Your task to perform on an android device: toggle javascript in the chrome app Image 0: 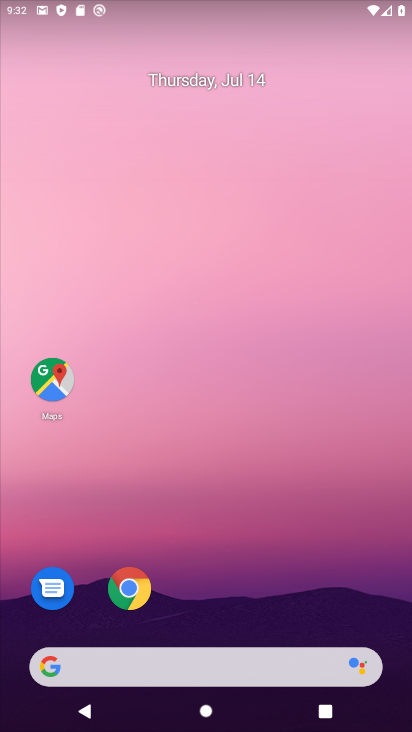
Step 0: drag from (225, 545) to (203, 2)
Your task to perform on an android device: toggle javascript in the chrome app Image 1: 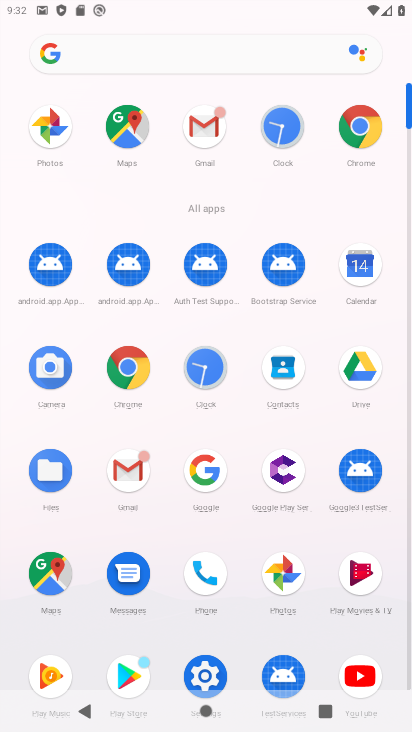
Step 1: click (131, 365)
Your task to perform on an android device: toggle javascript in the chrome app Image 2: 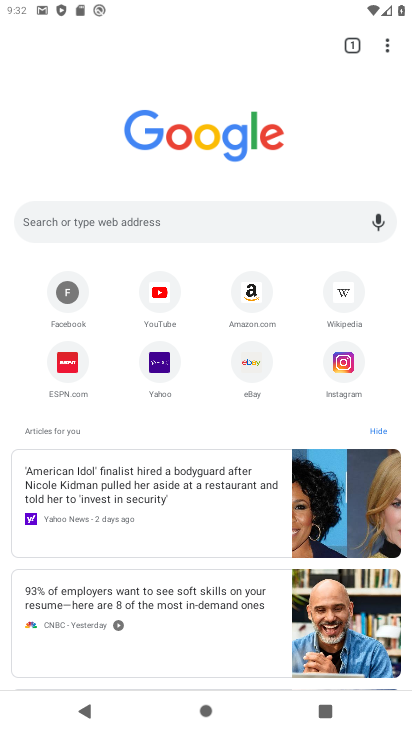
Step 2: click (392, 39)
Your task to perform on an android device: toggle javascript in the chrome app Image 3: 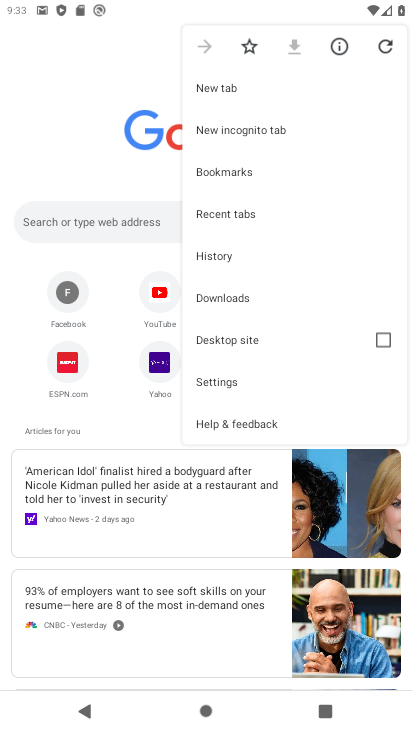
Step 3: click (222, 387)
Your task to perform on an android device: toggle javascript in the chrome app Image 4: 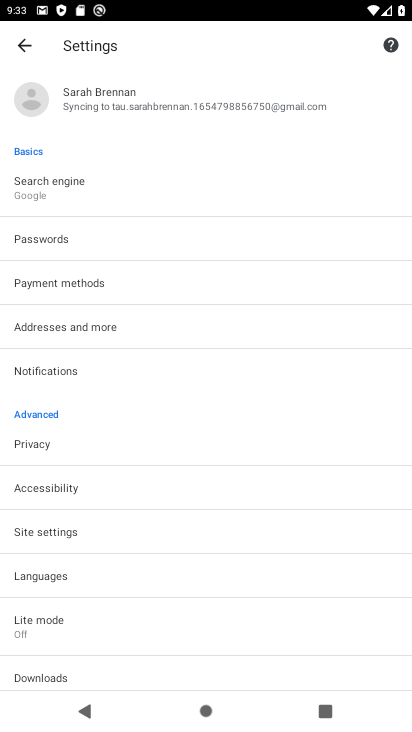
Step 4: click (64, 537)
Your task to perform on an android device: toggle javascript in the chrome app Image 5: 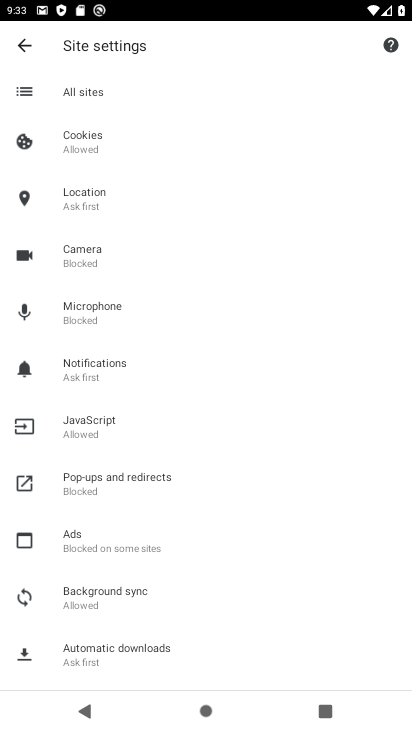
Step 5: click (124, 420)
Your task to perform on an android device: toggle javascript in the chrome app Image 6: 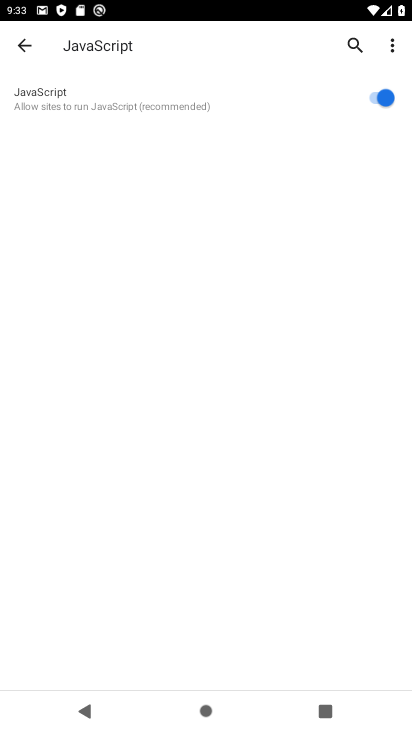
Step 6: click (359, 101)
Your task to perform on an android device: toggle javascript in the chrome app Image 7: 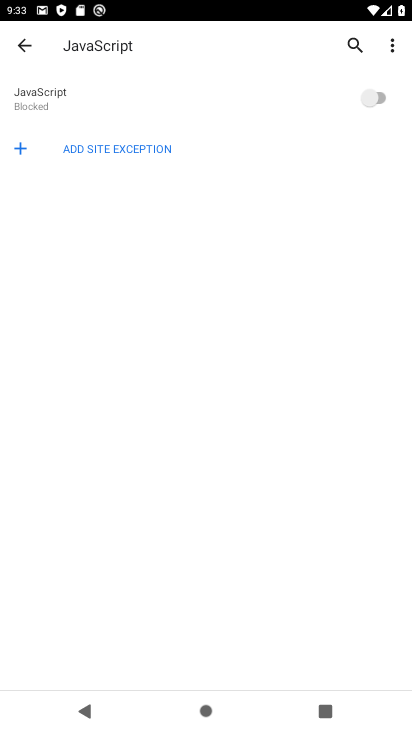
Step 7: task complete